Your task to perform on an android device: toggle data saver in the chrome app Image 0: 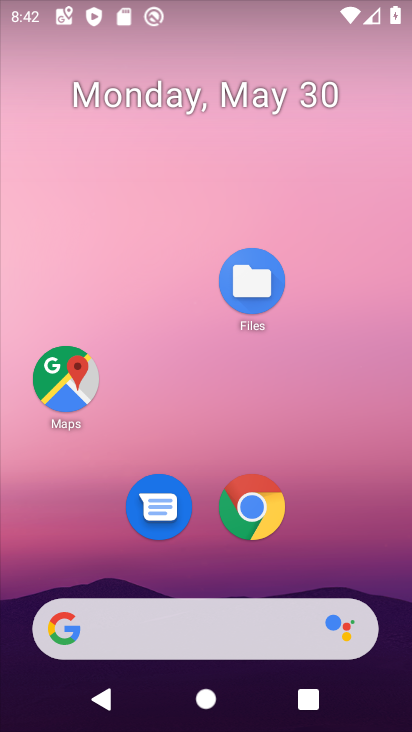
Step 0: drag from (191, 572) to (251, 4)
Your task to perform on an android device: toggle data saver in the chrome app Image 1: 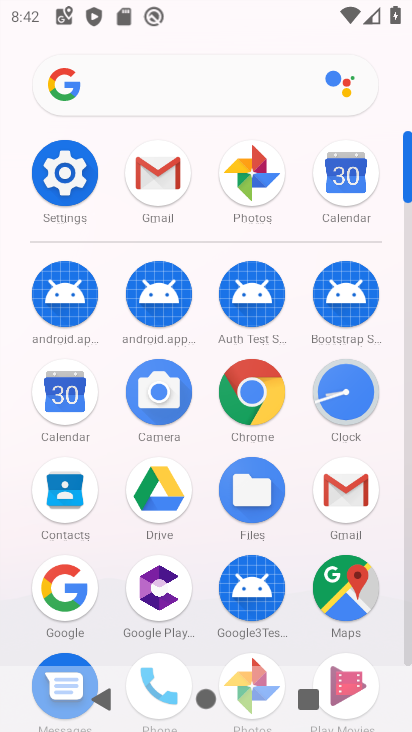
Step 1: click (259, 409)
Your task to perform on an android device: toggle data saver in the chrome app Image 2: 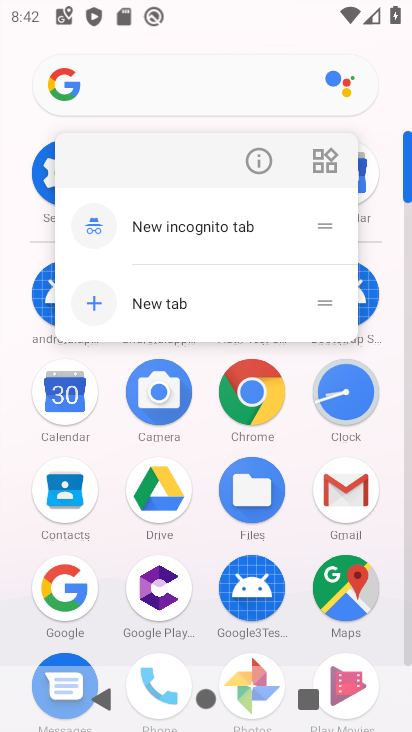
Step 2: click (260, 409)
Your task to perform on an android device: toggle data saver in the chrome app Image 3: 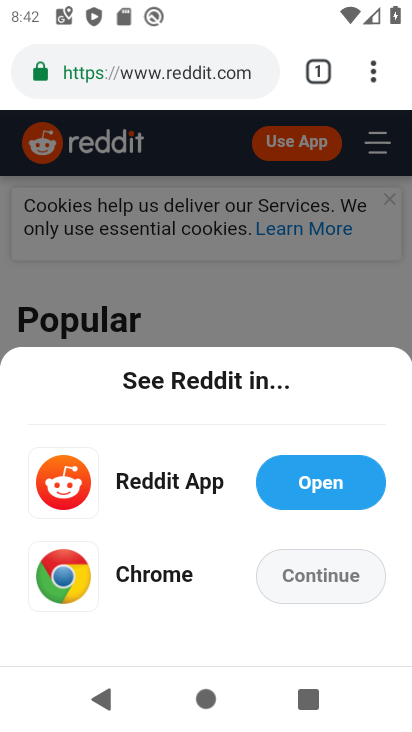
Step 3: click (383, 66)
Your task to perform on an android device: toggle data saver in the chrome app Image 4: 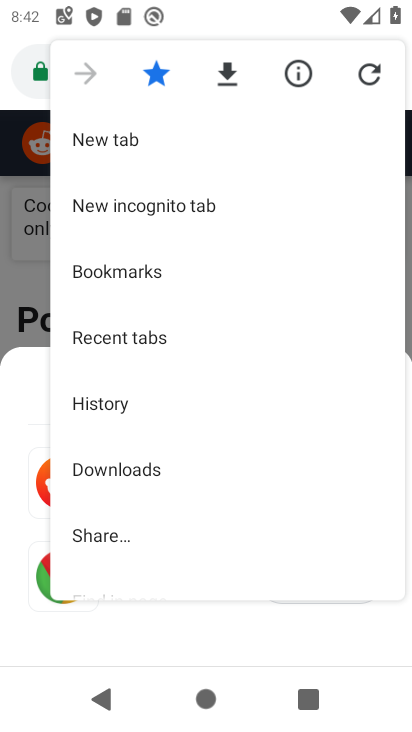
Step 4: drag from (132, 494) to (179, 141)
Your task to perform on an android device: toggle data saver in the chrome app Image 5: 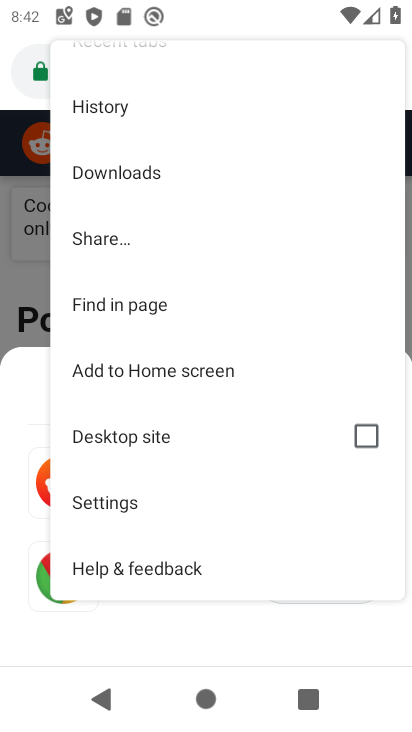
Step 5: click (113, 505)
Your task to perform on an android device: toggle data saver in the chrome app Image 6: 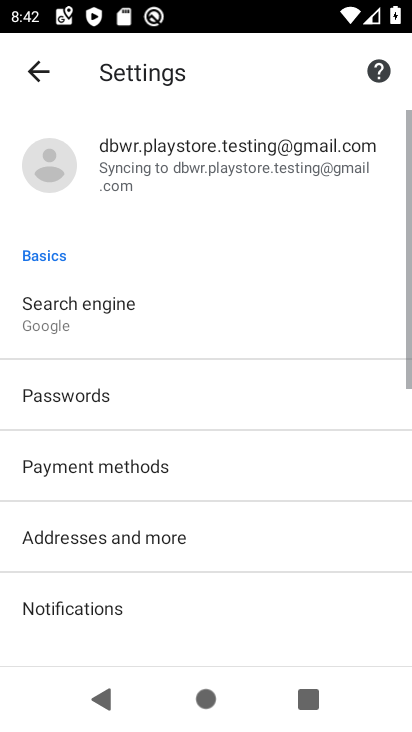
Step 6: drag from (195, 557) to (195, 213)
Your task to perform on an android device: toggle data saver in the chrome app Image 7: 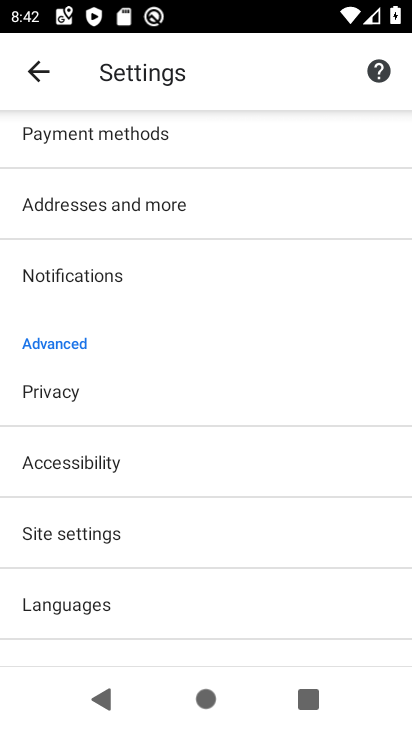
Step 7: drag from (121, 552) to (161, 362)
Your task to perform on an android device: toggle data saver in the chrome app Image 8: 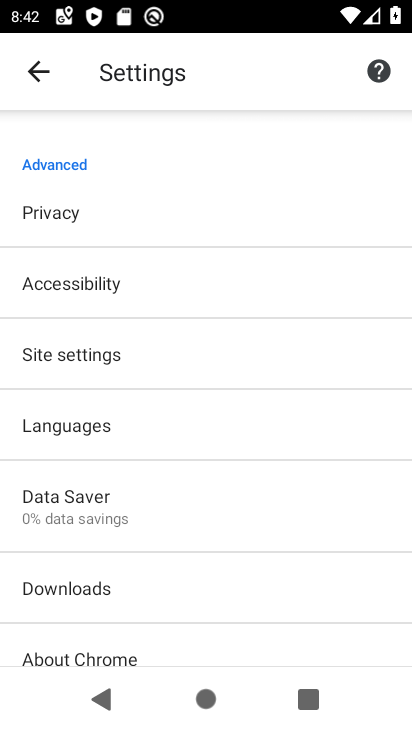
Step 8: click (115, 501)
Your task to perform on an android device: toggle data saver in the chrome app Image 9: 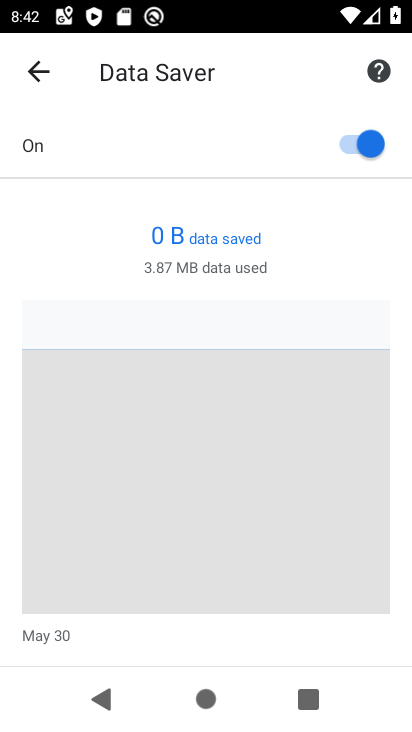
Step 9: click (337, 145)
Your task to perform on an android device: toggle data saver in the chrome app Image 10: 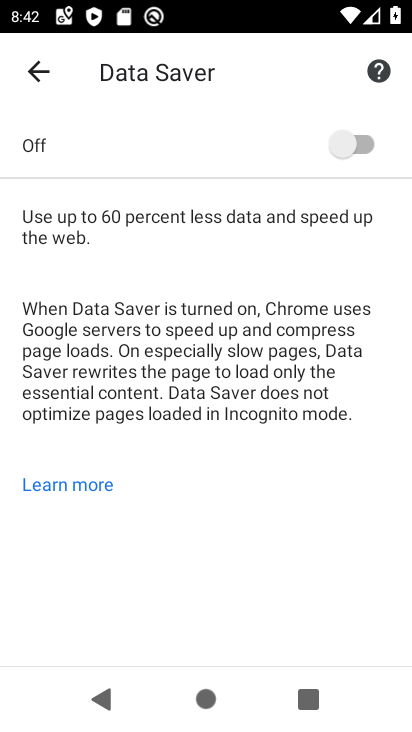
Step 10: task complete